Your task to perform on an android device: find photos in the google photos app Image 0: 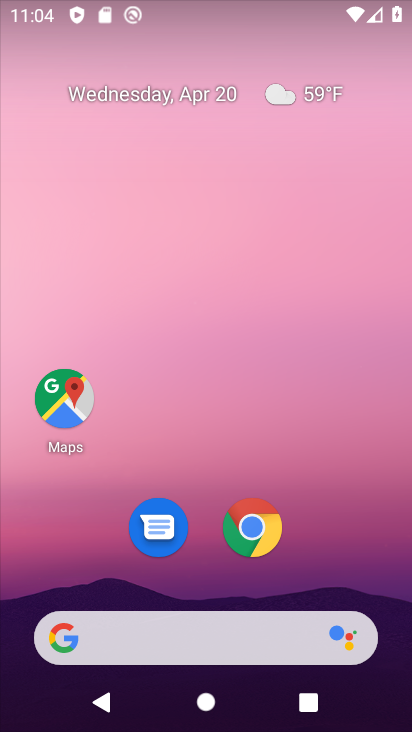
Step 0: drag from (381, 583) to (374, 47)
Your task to perform on an android device: find photos in the google photos app Image 1: 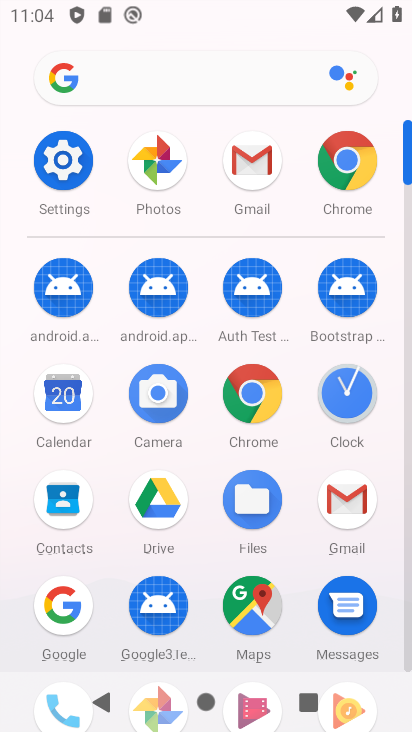
Step 1: click (161, 170)
Your task to perform on an android device: find photos in the google photos app Image 2: 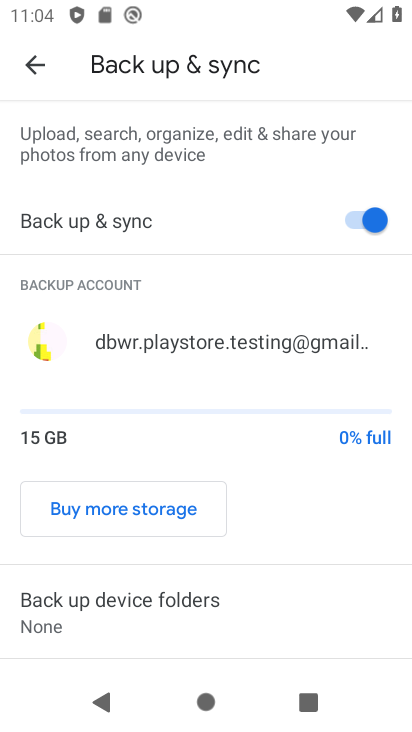
Step 2: drag from (282, 578) to (259, 233)
Your task to perform on an android device: find photos in the google photos app Image 3: 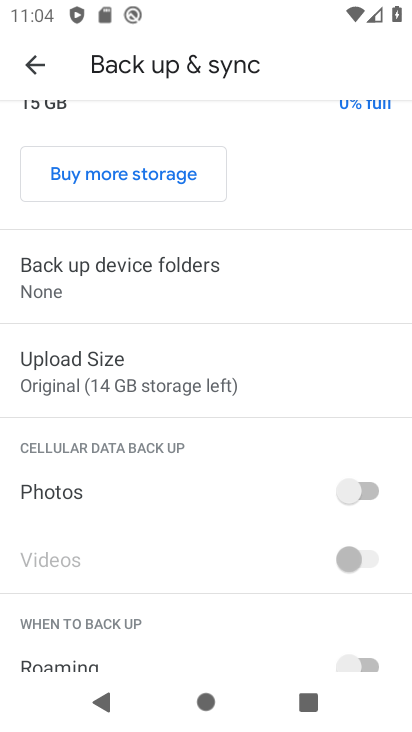
Step 3: click (35, 51)
Your task to perform on an android device: find photos in the google photos app Image 4: 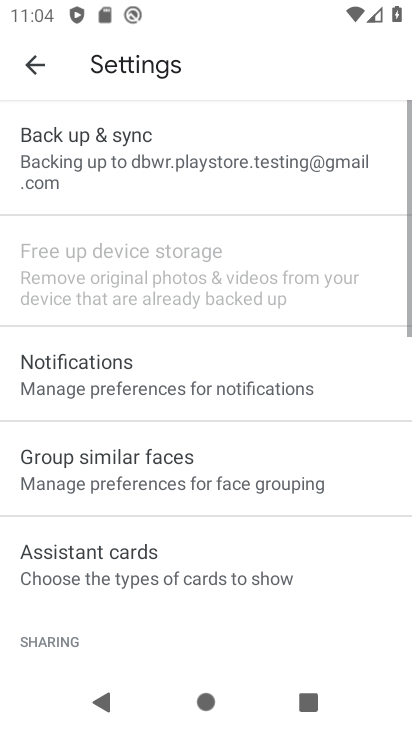
Step 4: click (35, 51)
Your task to perform on an android device: find photos in the google photos app Image 5: 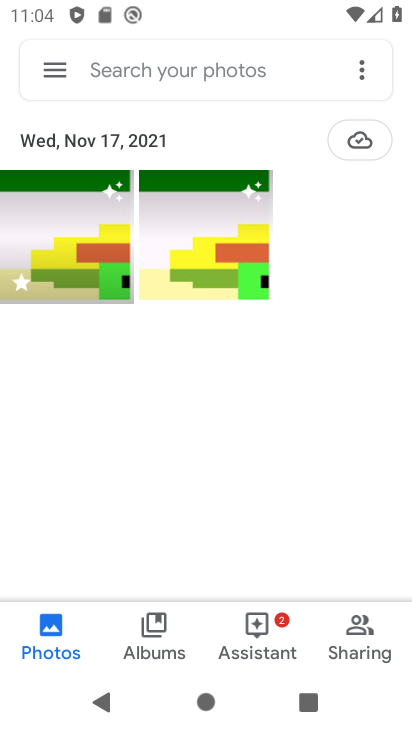
Step 5: task complete